Your task to perform on an android device: Go to internet settings Image 0: 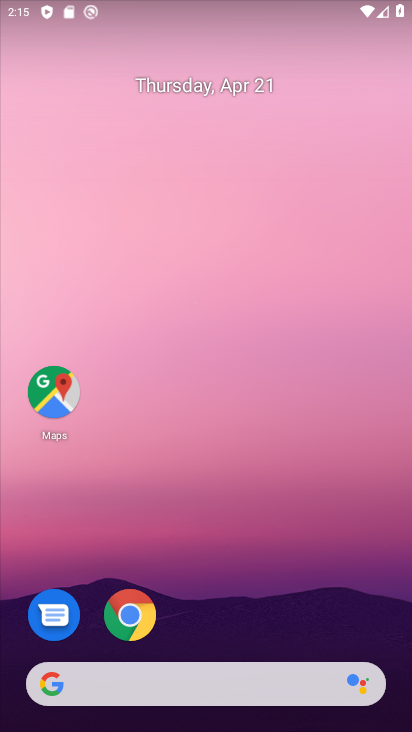
Step 0: click (292, 80)
Your task to perform on an android device: Go to internet settings Image 1: 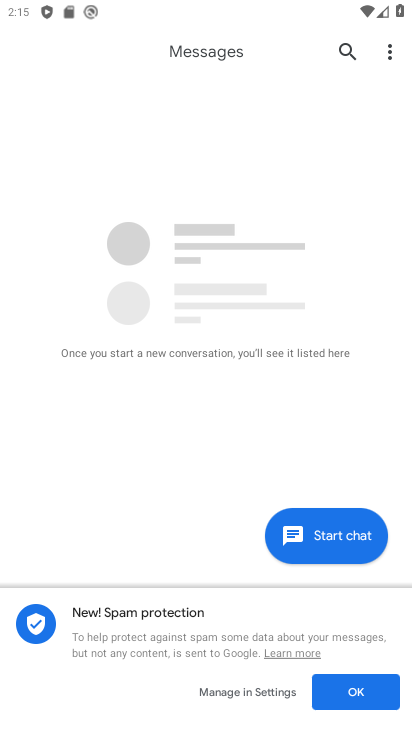
Step 1: press back button
Your task to perform on an android device: Go to internet settings Image 2: 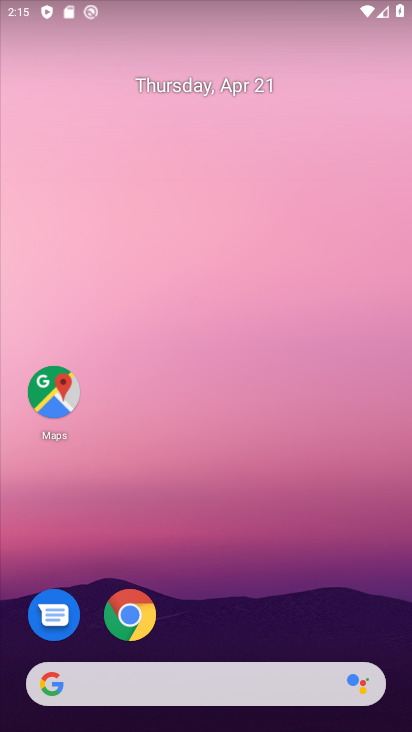
Step 2: drag from (193, 544) to (257, 2)
Your task to perform on an android device: Go to internet settings Image 3: 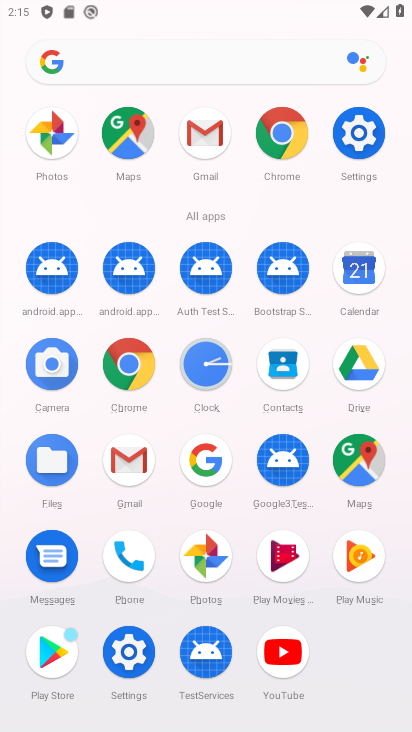
Step 3: click (359, 134)
Your task to perform on an android device: Go to internet settings Image 4: 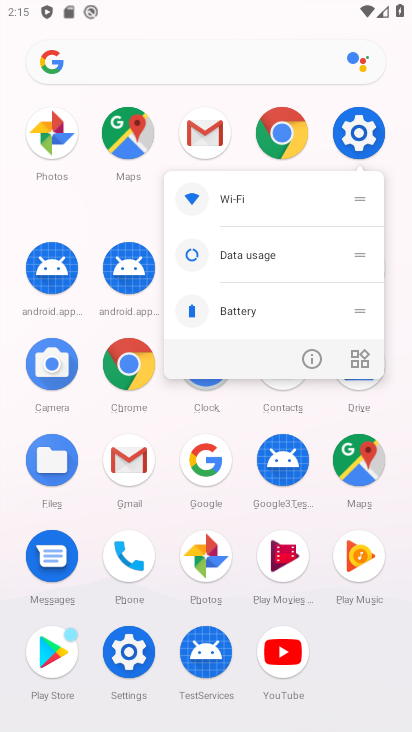
Step 4: click (357, 132)
Your task to perform on an android device: Go to internet settings Image 5: 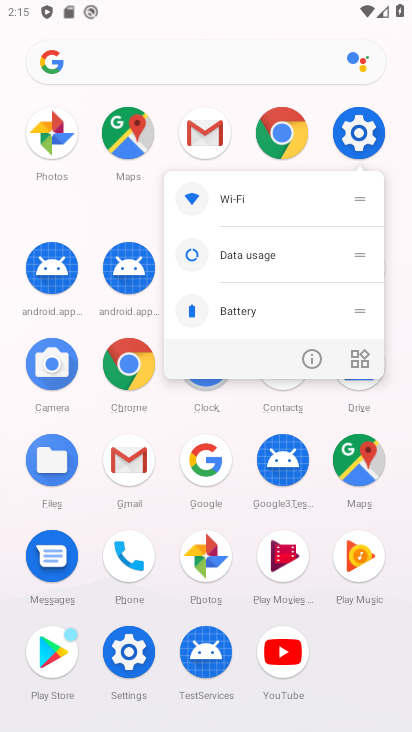
Step 5: click (358, 131)
Your task to perform on an android device: Go to internet settings Image 6: 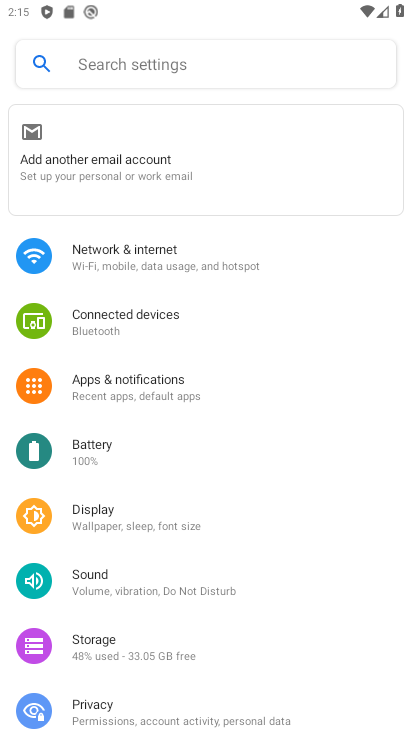
Step 6: click (153, 144)
Your task to perform on an android device: Go to internet settings Image 7: 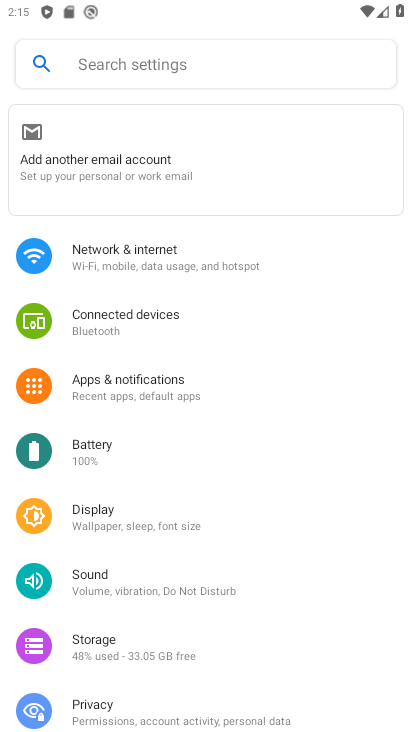
Step 7: click (138, 251)
Your task to perform on an android device: Go to internet settings Image 8: 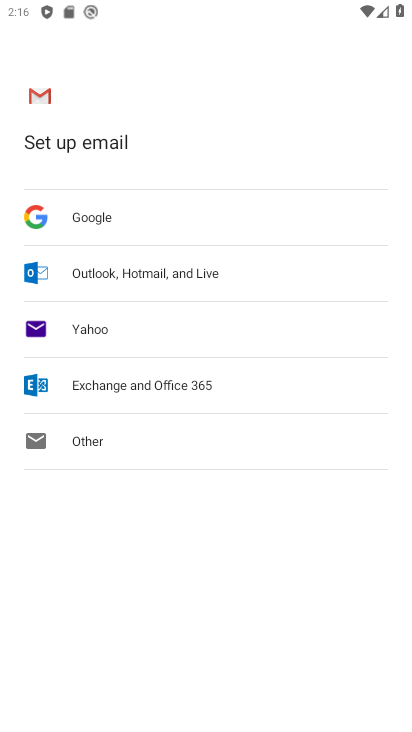
Step 8: press back button
Your task to perform on an android device: Go to internet settings Image 9: 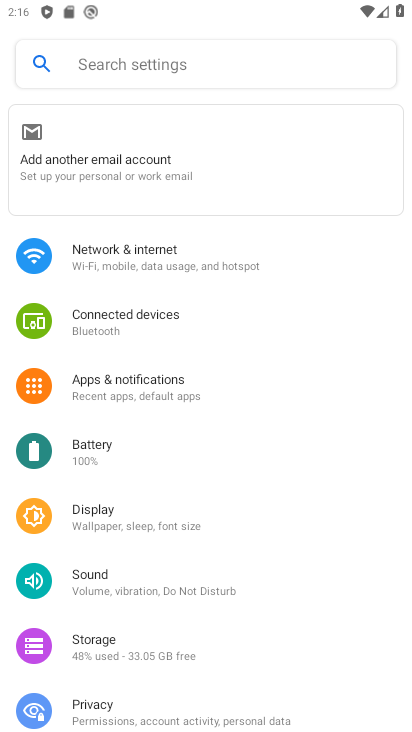
Step 9: click (118, 272)
Your task to perform on an android device: Go to internet settings Image 10: 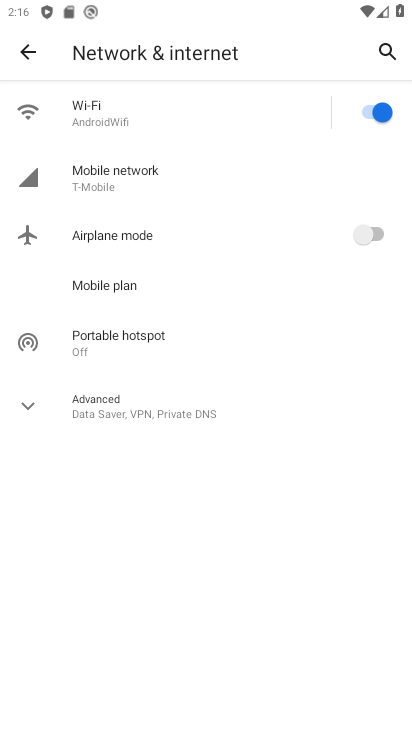
Step 10: task complete